Your task to perform on an android device: change the clock display to analog Image 0: 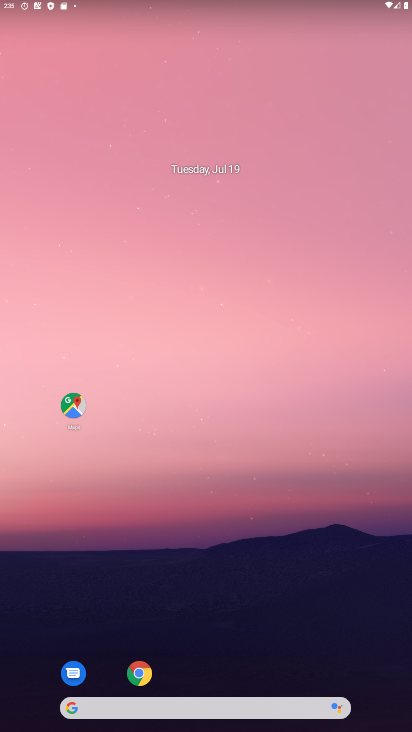
Step 0: click (142, 682)
Your task to perform on an android device: change the clock display to analog Image 1: 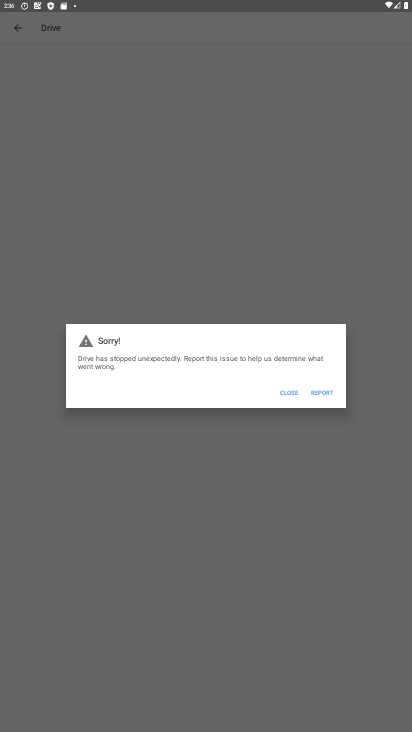
Step 1: click (135, 660)
Your task to perform on an android device: change the clock display to analog Image 2: 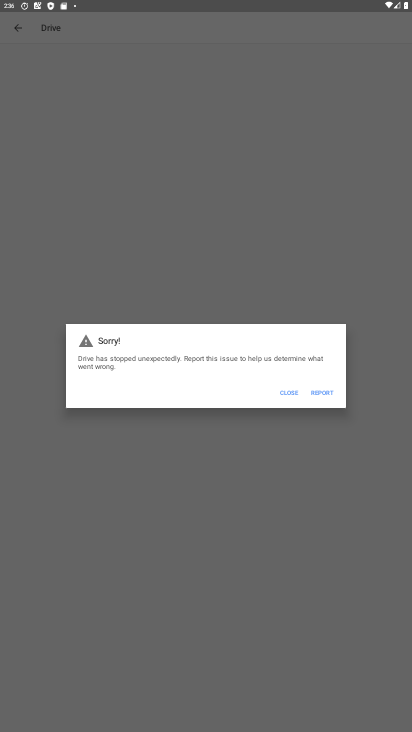
Step 2: press home button
Your task to perform on an android device: change the clock display to analog Image 3: 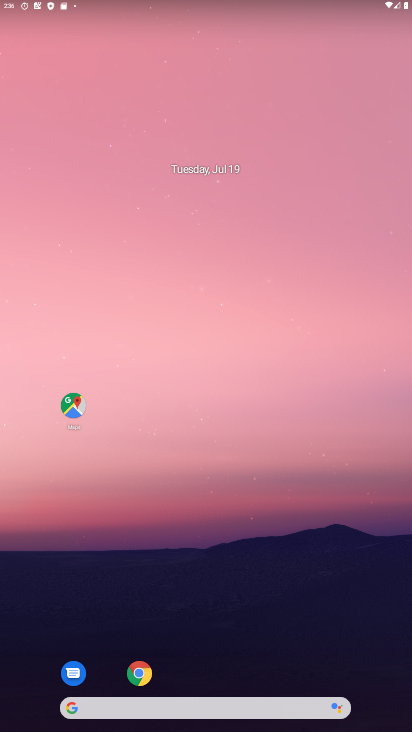
Step 3: drag from (230, 596) to (245, 237)
Your task to perform on an android device: change the clock display to analog Image 4: 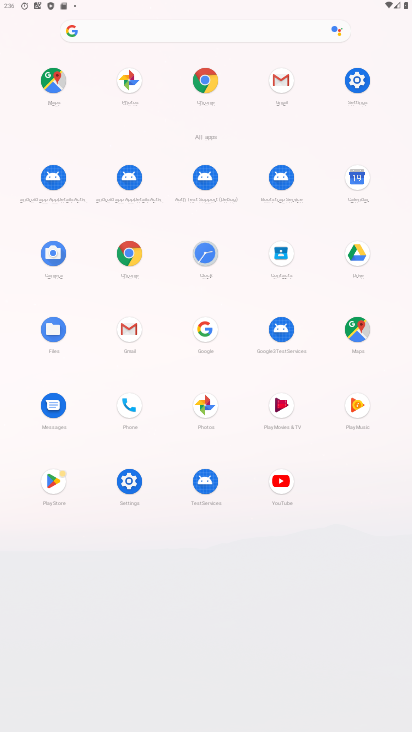
Step 4: click (208, 259)
Your task to perform on an android device: change the clock display to analog Image 5: 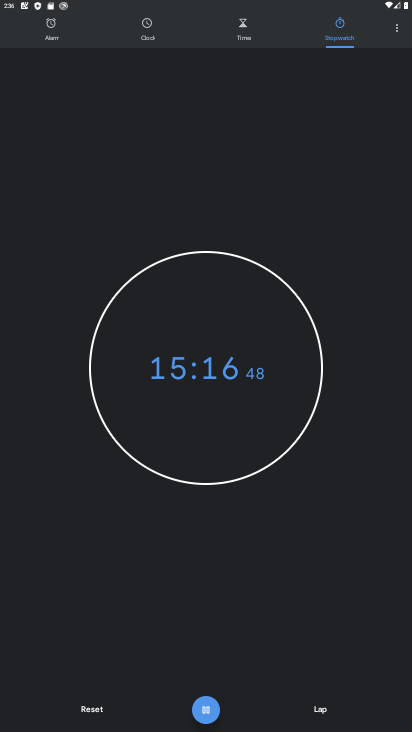
Step 5: click (391, 33)
Your task to perform on an android device: change the clock display to analog Image 6: 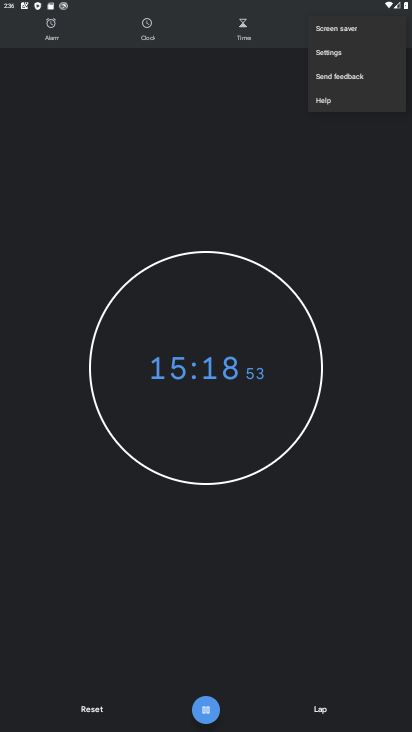
Step 6: click (345, 57)
Your task to perform on an android device: change the clock display to analog Image 7: 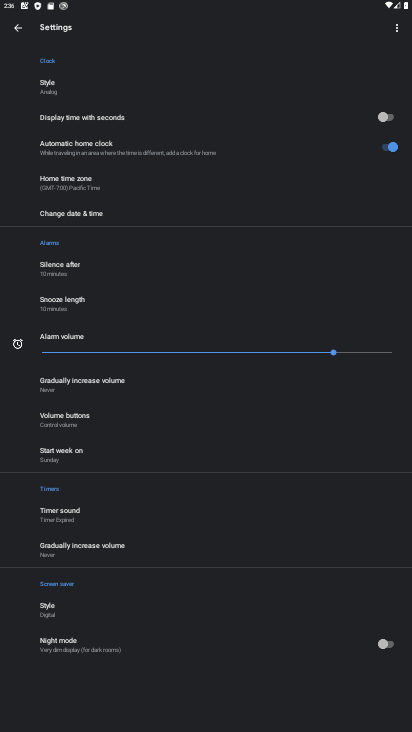
Step 7: click (64, 89)
Your task to perform on an android device: change the clock display to analog Image 8: 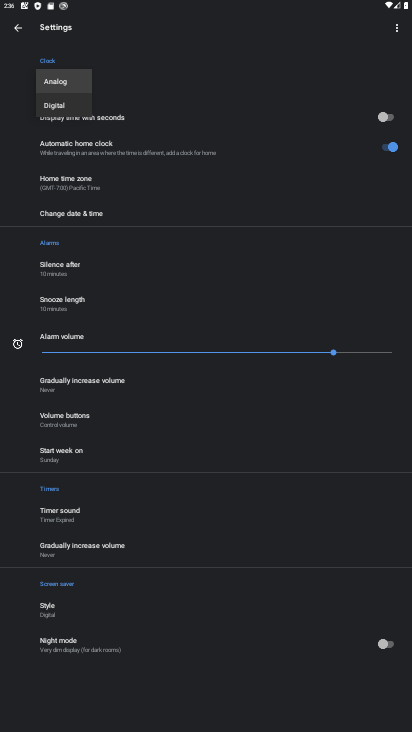
Step 8: click (66, 74)
Your task to perform on an android device: change the clock display to analog Image 9: 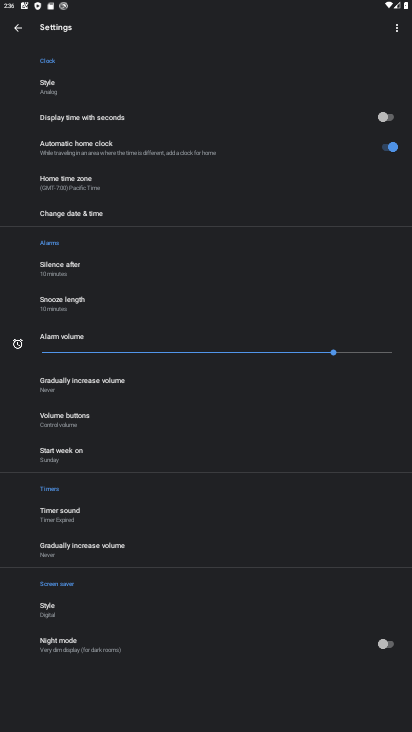
Step 9: task complete